Your task to perform on an android device: move an email to a new category in the gmail app Image 0: 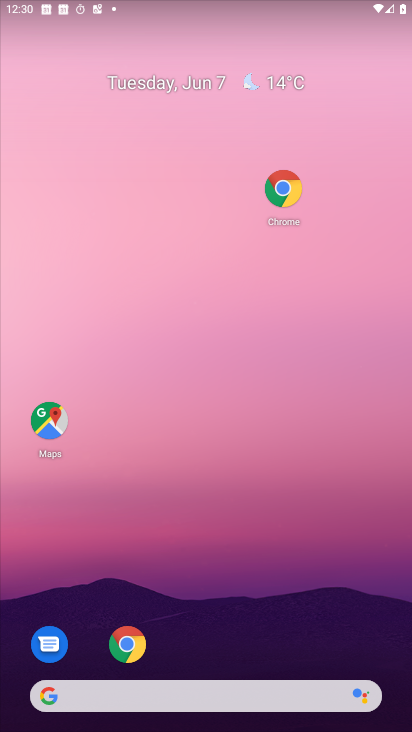
Step 0: drag from (278, 613) to (254, 83)
Your task to perform on an android device: move an email to a new category in the gmail app Image 1: 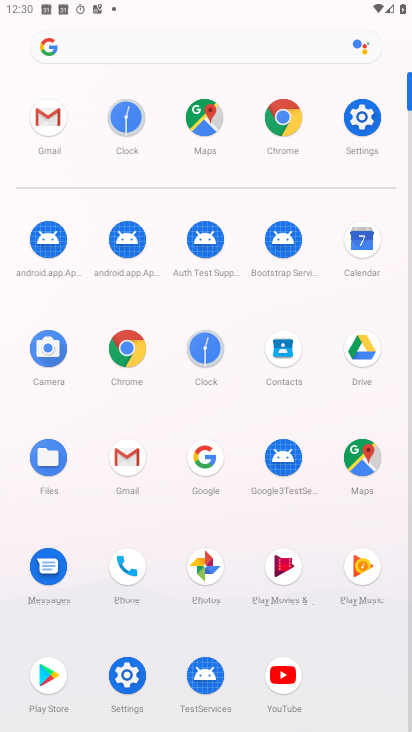
Step 1: click (59, 123)
Your task to perform on an android device: move an email to a new category in the gmail app Image 2: 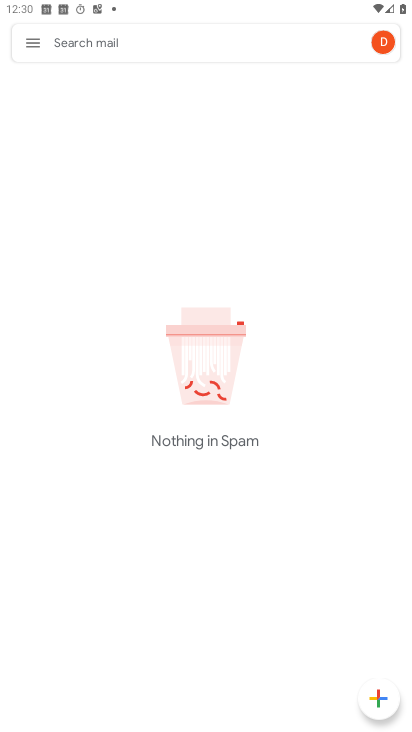
Step 2: click (42, 39)
Your task to perform on an android device: move an email to a new category in the gmail app Image 3: 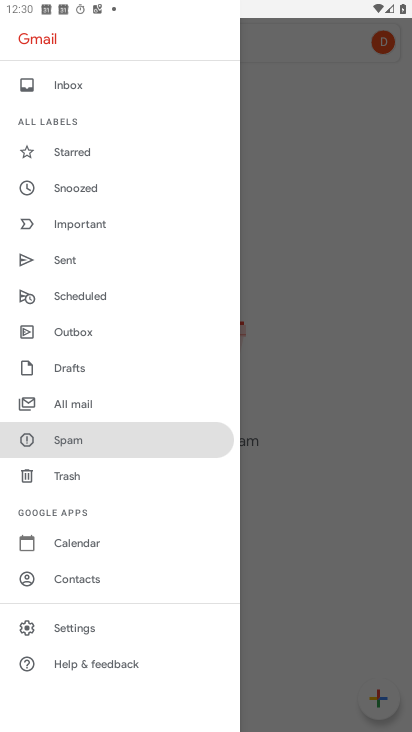
Step 3: click (98, 396)
Your task to perform on an android device: move an email to a new category in the gmail app Image 4: 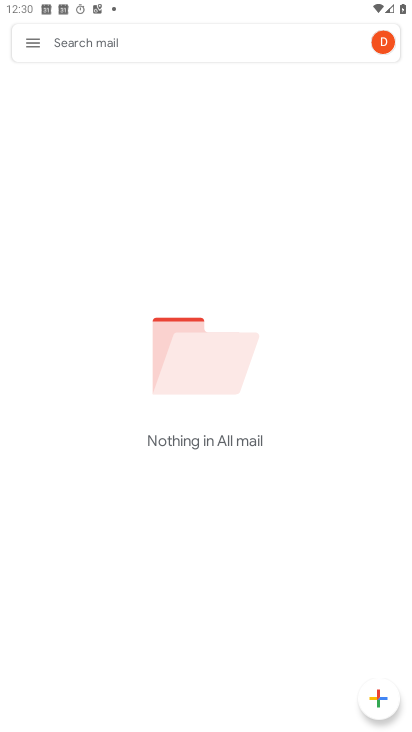
Step 4: task complete